Your task to perform on an android device: move a message to another label in the gmail app Image 0: 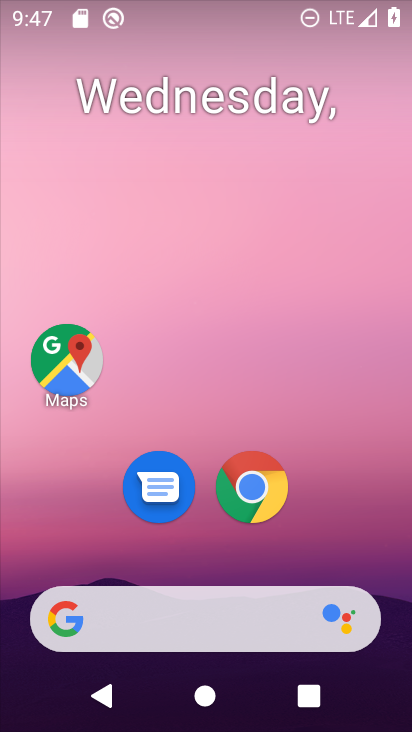
Step 0: drag from (339, 522) to (274, 56)
Your task to perform on an android device: move a message to another label in the gmail app Image 1: 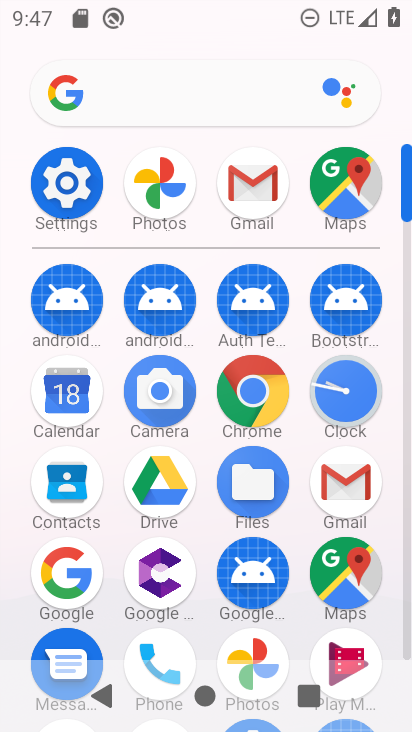
Step 1: click (342, 489)
Your task to perform on an android device: move a message to another label in the gmail app Image 2: 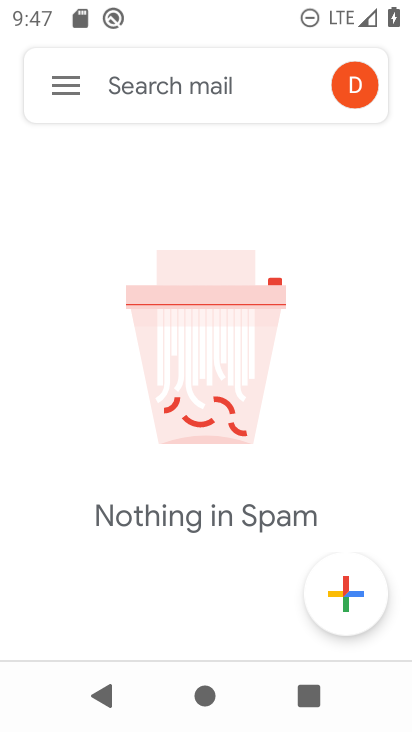
Step 2: click (64, 88)
Your task to perform on an android device: move a message to another label in the gmail app Image 3: 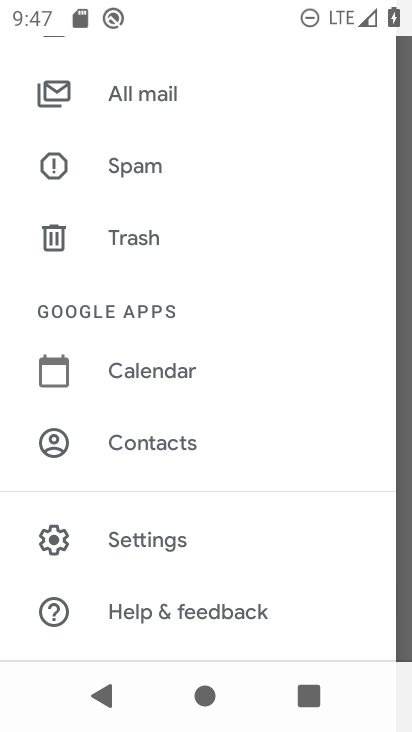
Step 3: click (131, 90)
Your task to perform on an android device: move a message to another label in the gmail app Image 4: 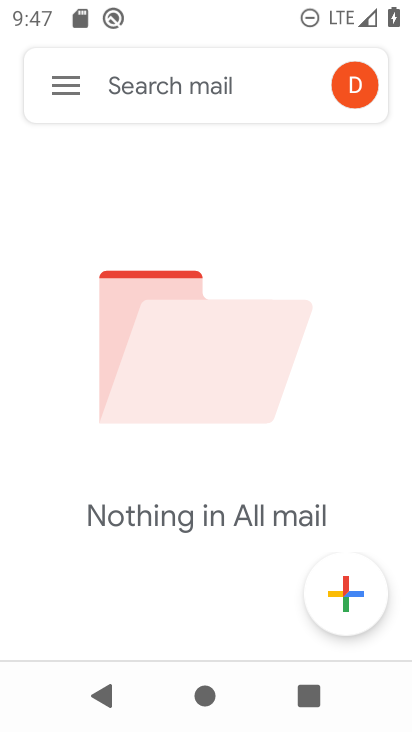
Step 4: task complete